Your task to perform on an android device: change your default location settings in chrome Image 0: 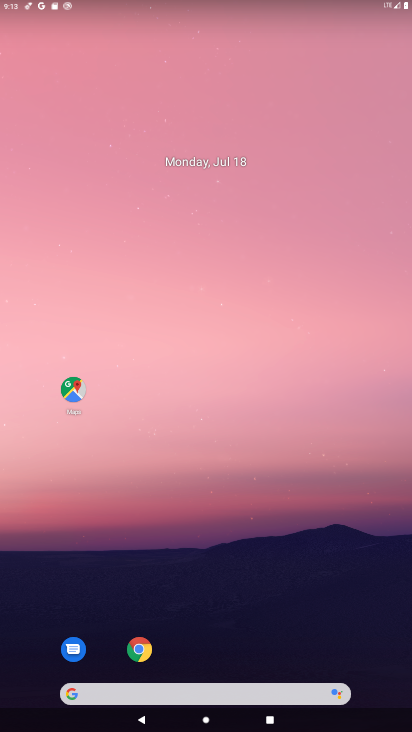
Step 0: drag from (203, 688) to (282, 215)
Your task to perform on an android device: change your default location settings in chrome Image 1: 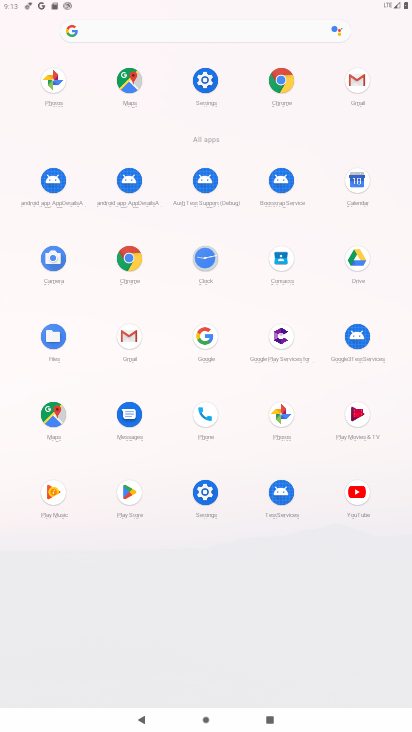
Step 1: click (214, 78)
Your task to perform on an android device: change your default location settings in chrome Image 2: 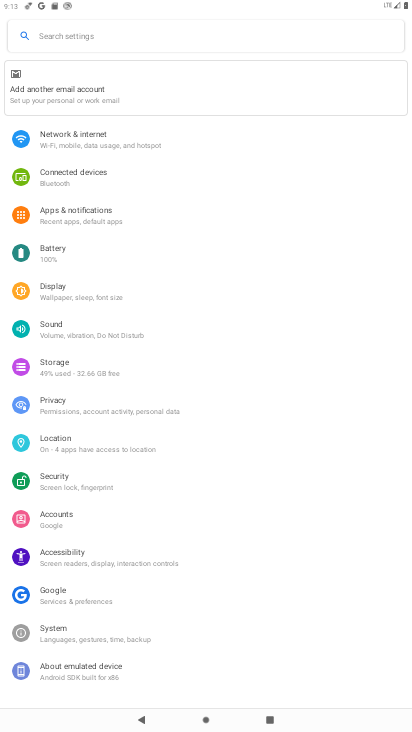
Step 2: click (88, 362)
Your task to perform on an android device: change your default location settings in chrome Image 3: 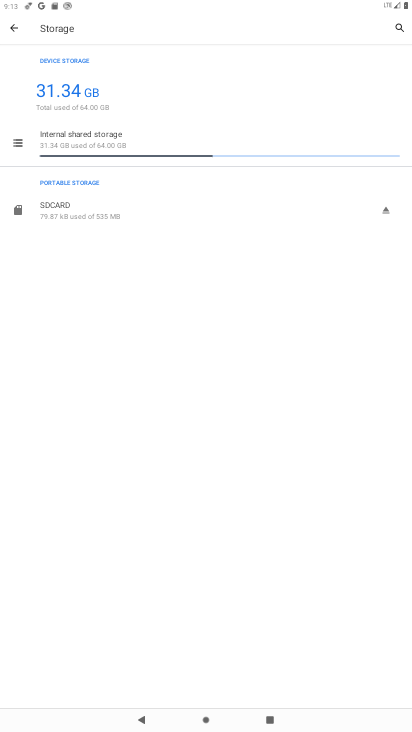
Step 3: task complete